Your task to perform on an android device: Open Reddit.com Image 0: 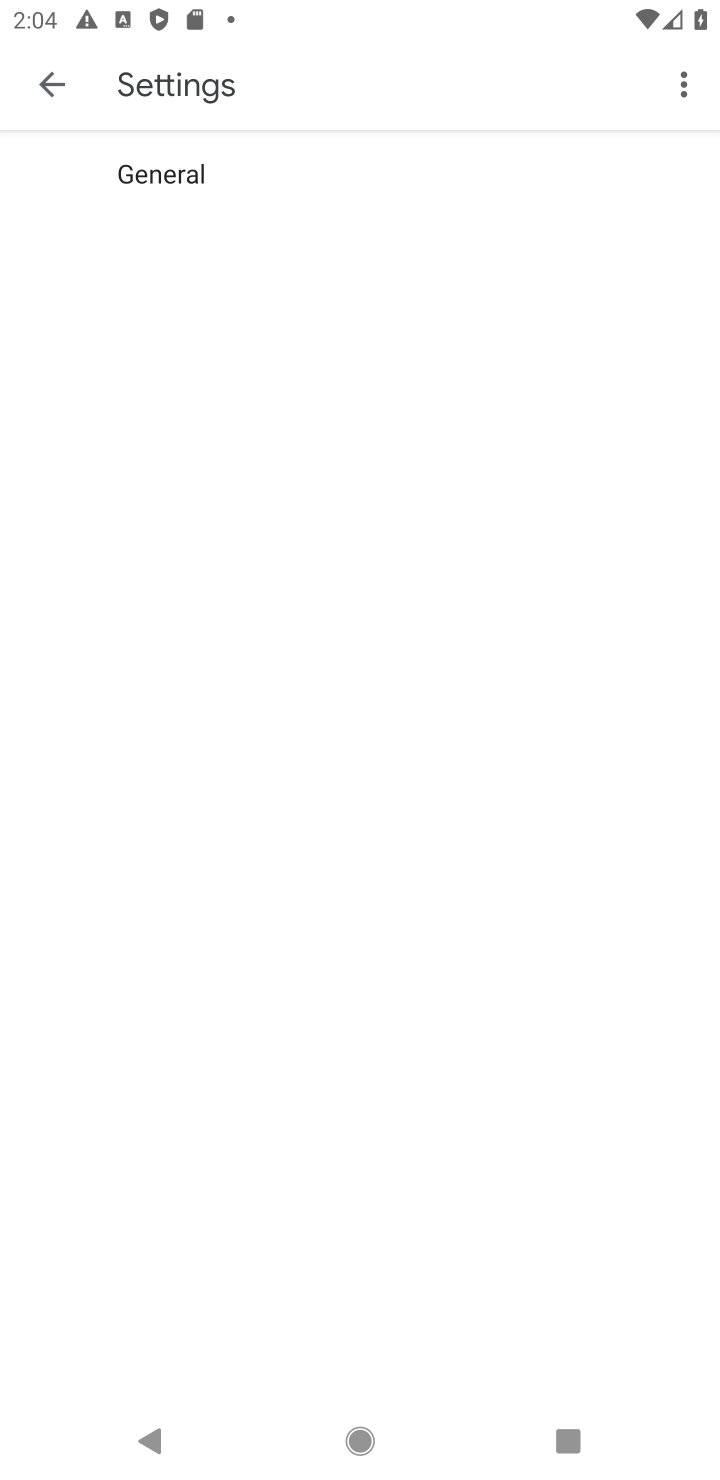
Step 0: press home button
Your task to perform on an android device: Open Reddit.com Image 1: 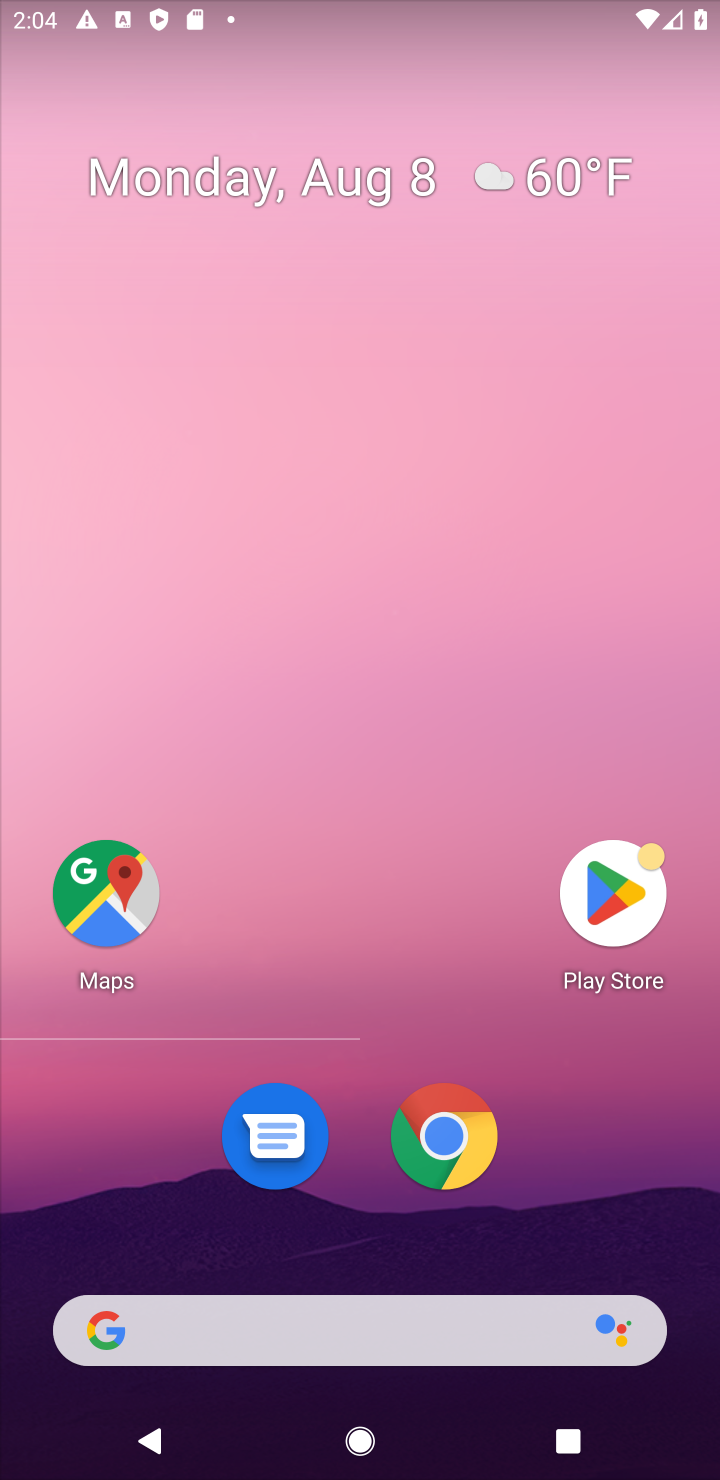
Step 1: click (196, 1342)
Your task to perform on an android device: Open Reddit.com Image 2: 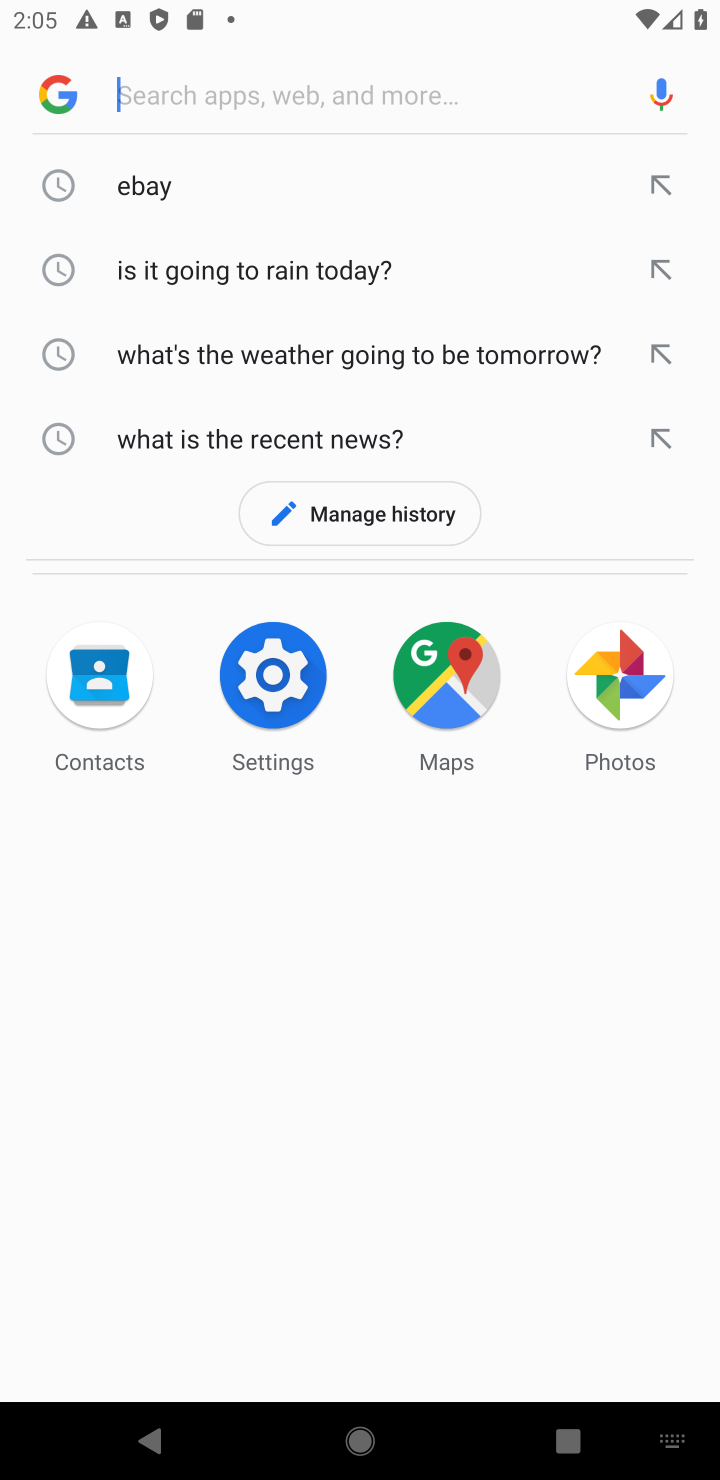
Step 2: type "Reddit.com"
Your task to perform on an android device: Open Reddit.com Image 3: 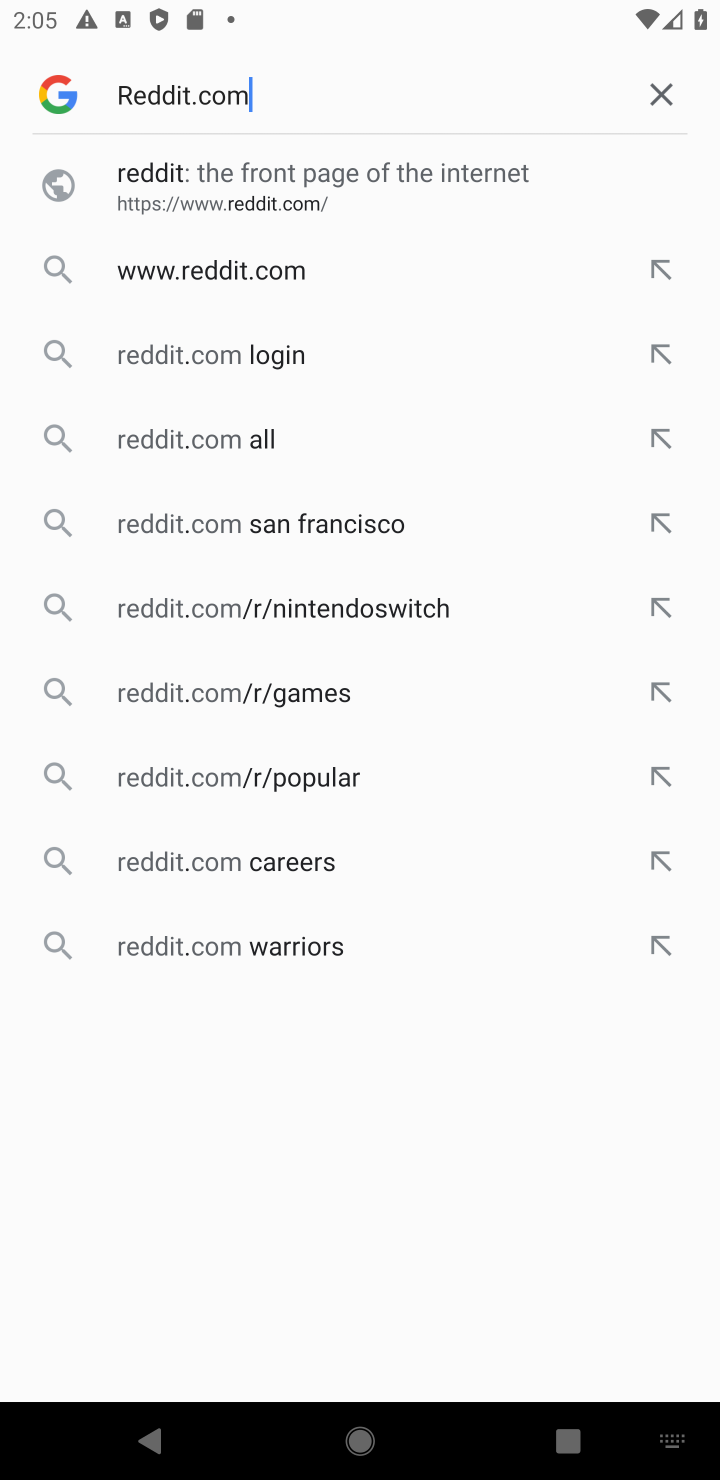
Step 3: click (302, 274)
Your task to perform on an android device: Open Reddit.com Image 4: 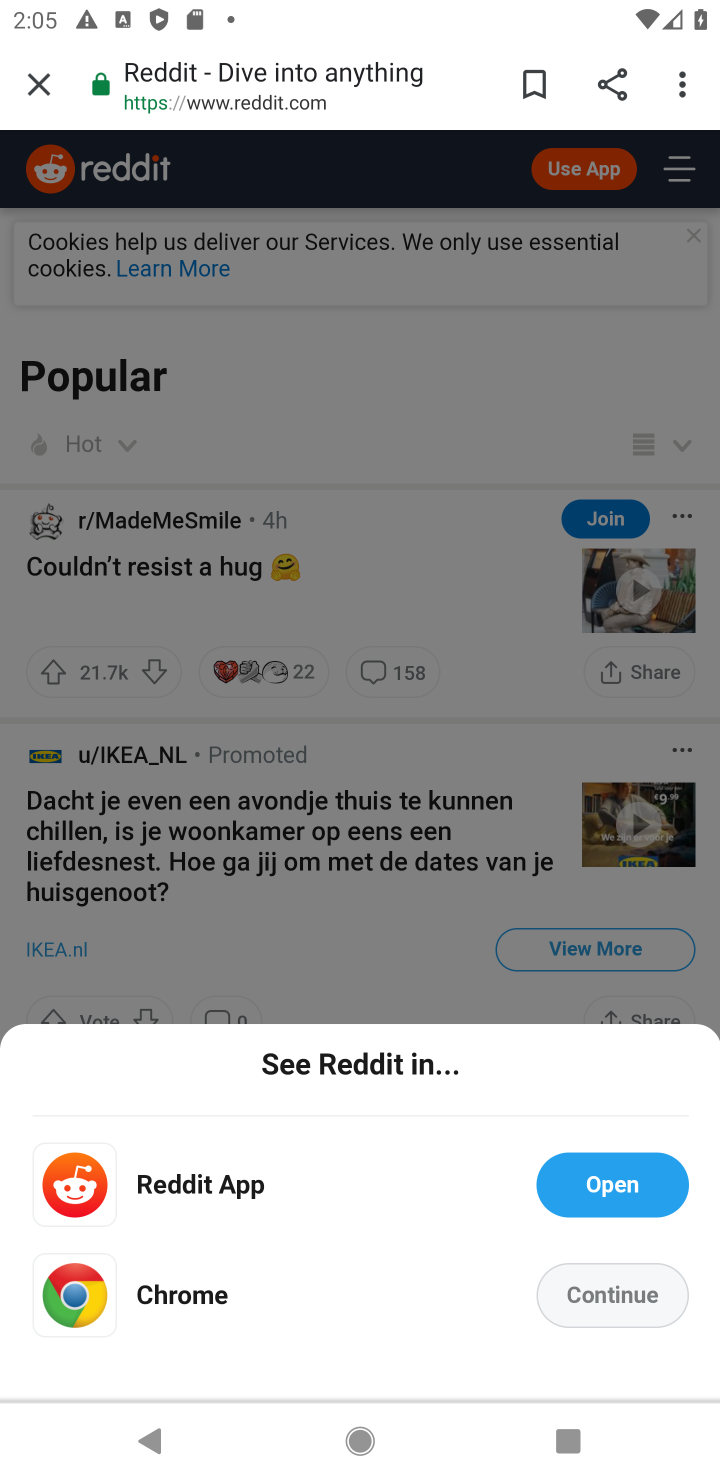
Step 4: click (623, 1268)
Your task to perform on an android device: Open Reddit.com Image 5: 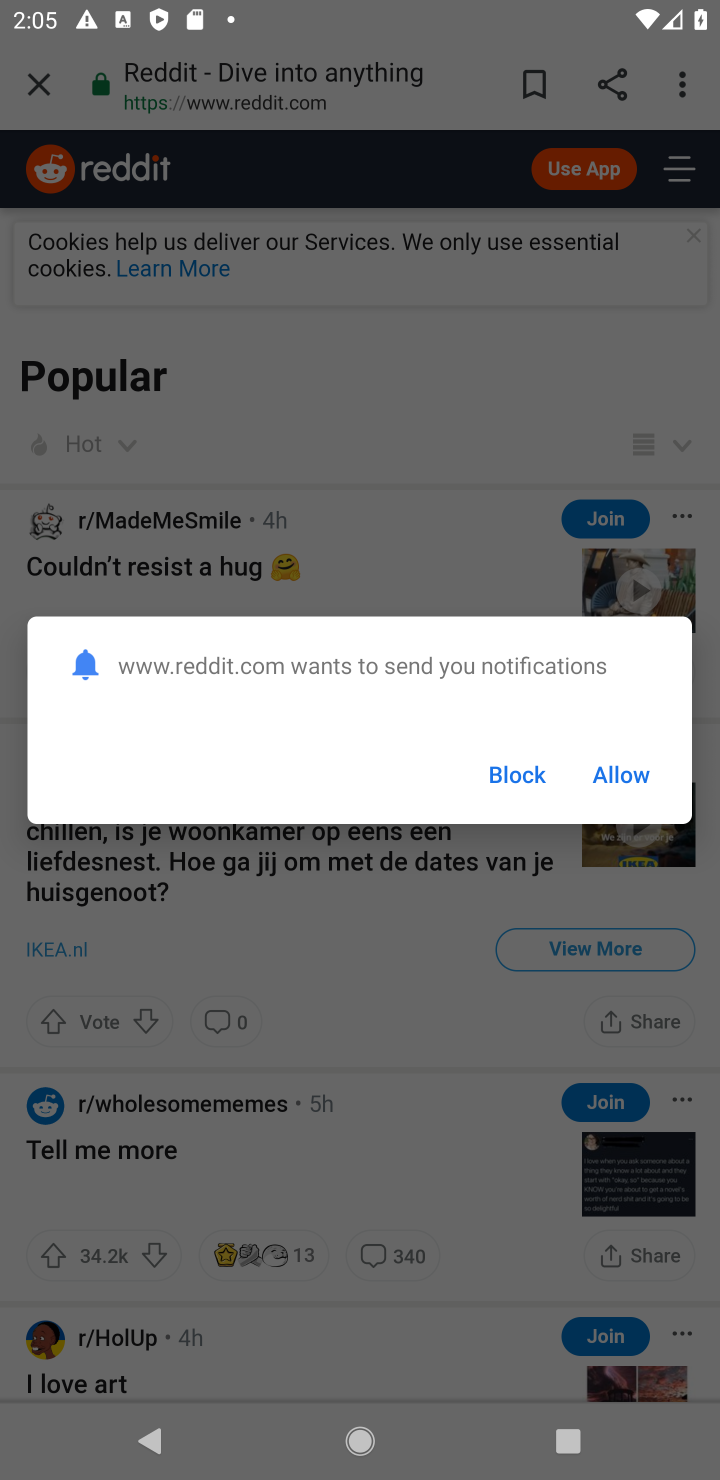
Step 5: task complete